Your task to perform on an android device: Open network settings Image 0: 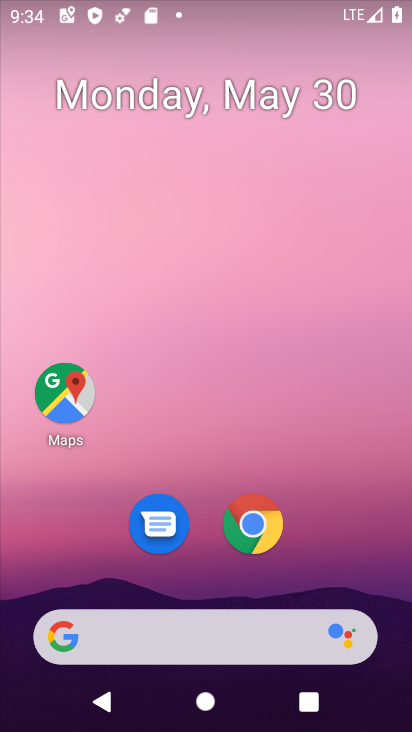
Step 0: drag from (185, 521) to (190, 30)
Your task to perform on an android device: Open network settings Image 1: 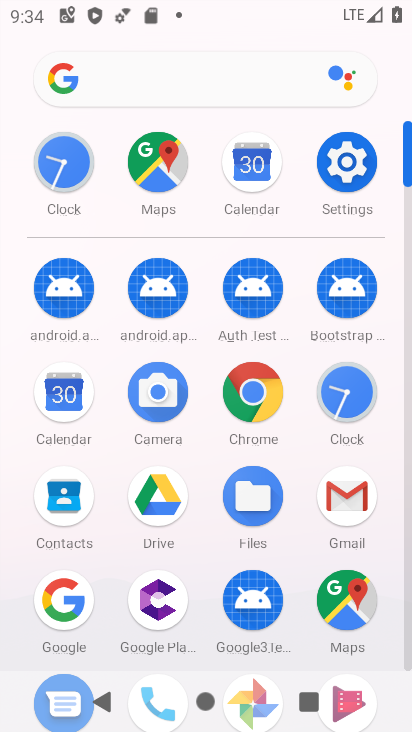
Step 1: click (351, 156)
Your task to perform on an android device: Open network settings Image 2: 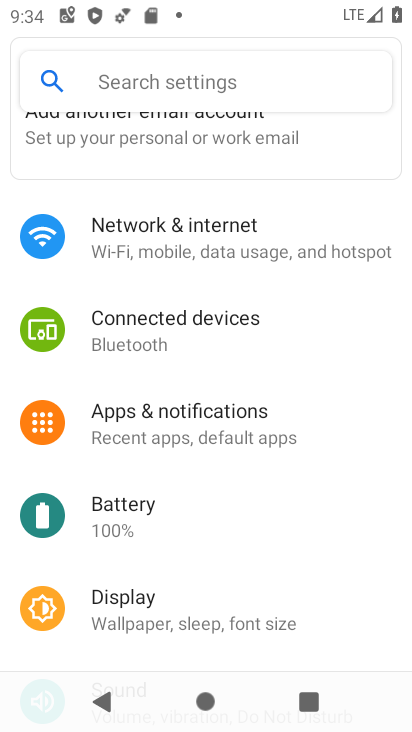
Step 2: click (263, 249)
Your task to perform on an android device: Open network settings Image 3: 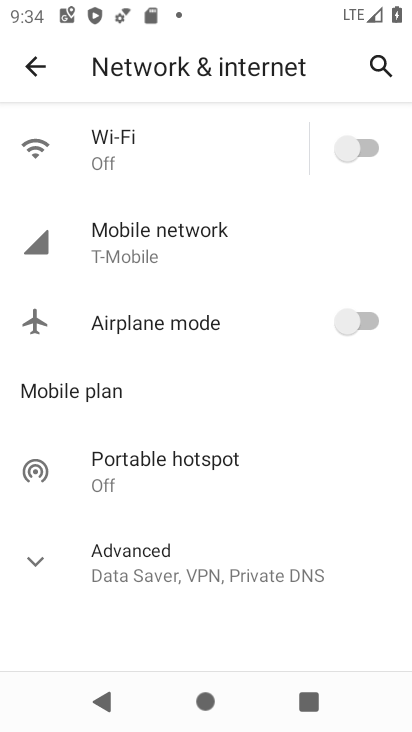
Step 3: task complete